Your task to perform on an android device: Go to network settings Image 0: 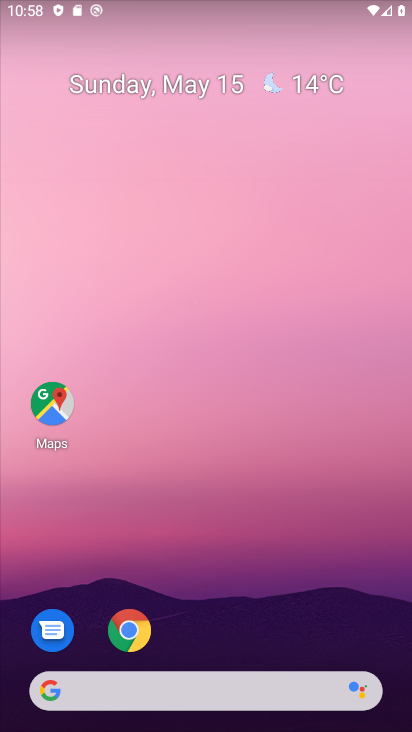
Step 0: drag from (21, 572) to (218, 169)
Your task to perform on an android device: Go to network settings Image 1: 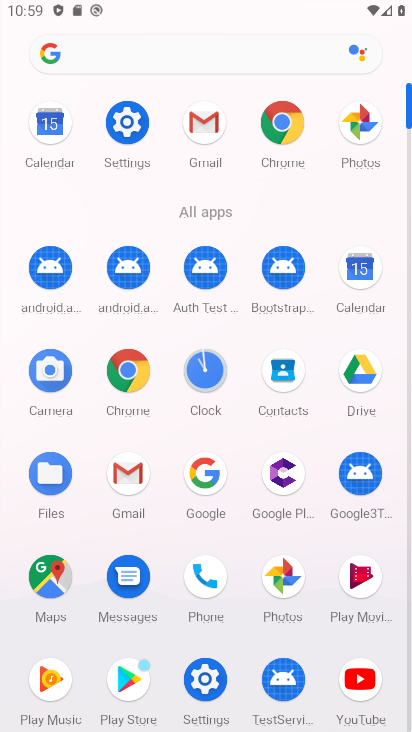
Step 1: click (131, 127)
Your task to perform on an android device: Go to network settings Image 2: 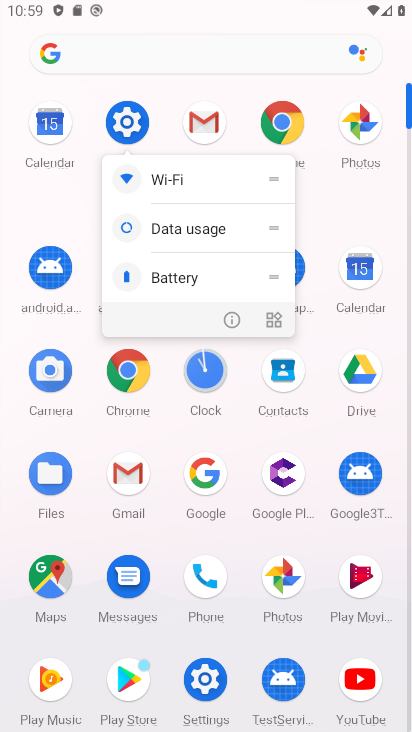
Step 2: click (124, 115)
Your task to perform on an android device: Go to network settings Image 3: 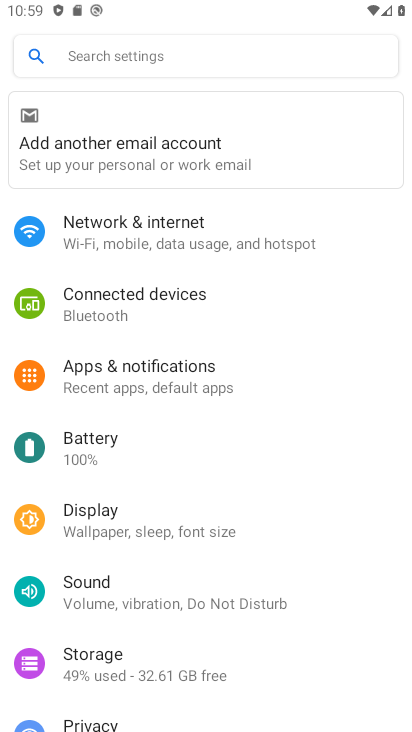
Step 3: click (123, 220)
Your task to perform on an android device: Go to network settings Image 4: 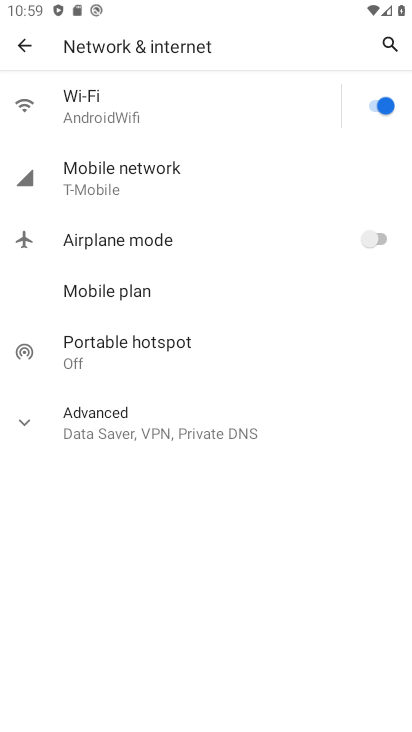
Step 4: click (220, 188)
Your task to perform on an android device: Go to network settings Image 5: 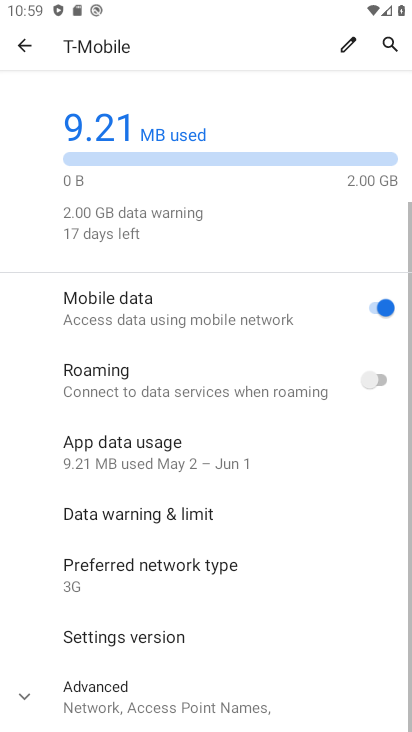
Step 5: task complete